Your task to perform on an android device: Open calendar and show me the fourth week of next month Image 0: 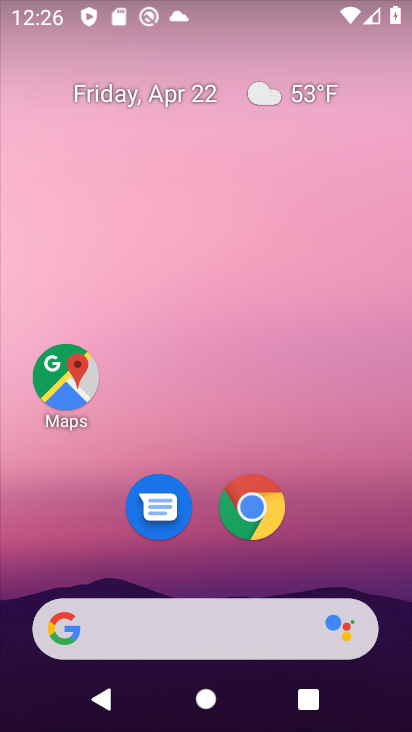
Step 0: drag from (332, 548) to (279, 105)
Your task to perform on an android device: Open calendar and show me the fourth week of next month Image 1: 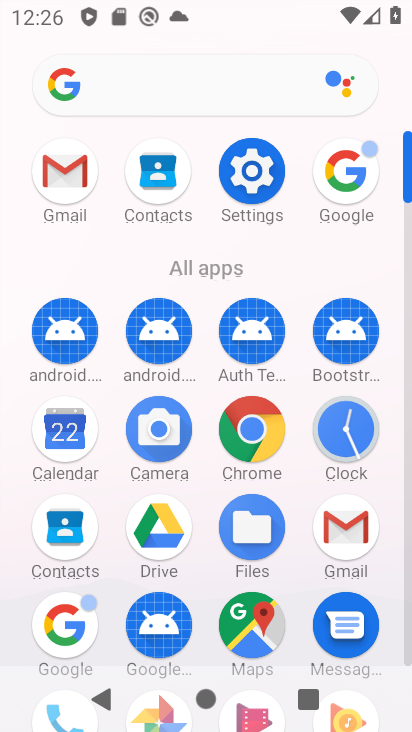
Step 1: click (55, 457)
Your task to perform on an android device: Open calendar and show me the fourth week of next month Image 2: 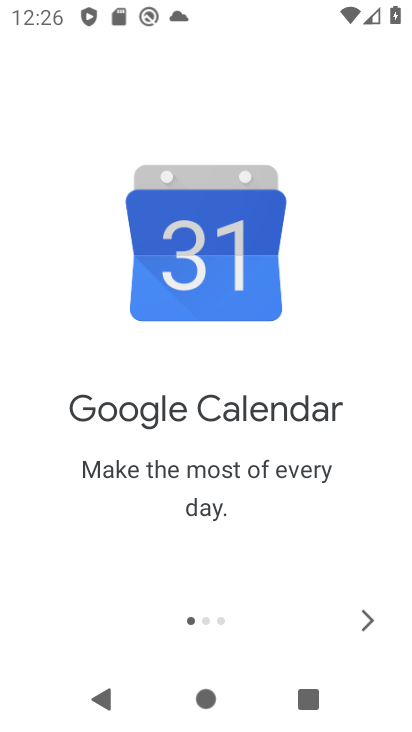
Step 2: click (363, 615)
Your task to perform on an android device: Open calendar and show me the fourth week of next month Image 3: 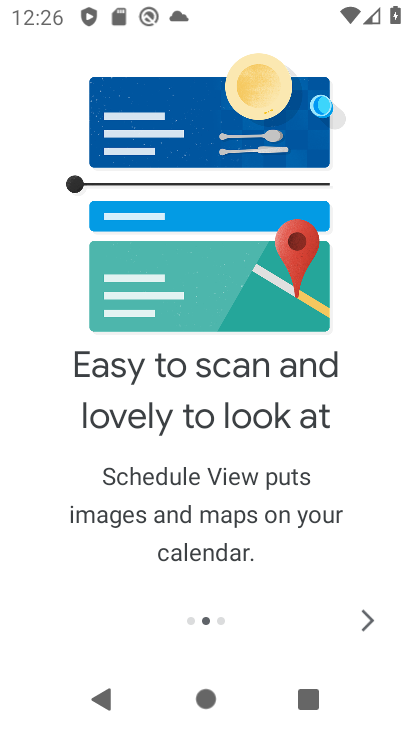
Step 3: click (363, 615)
Your task to perform on an android device: Open calendar and show me the fourth week of next month Image 4: 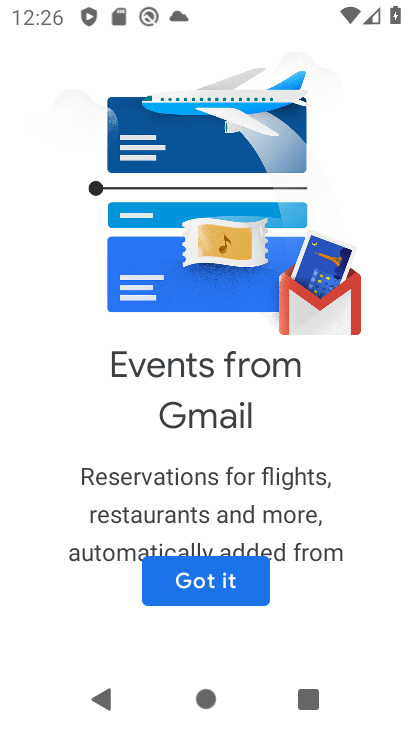
Step 4: click (204, 591)
Your task to perform on an android device: Open calendar and show me the fourth week of next month Image 5: 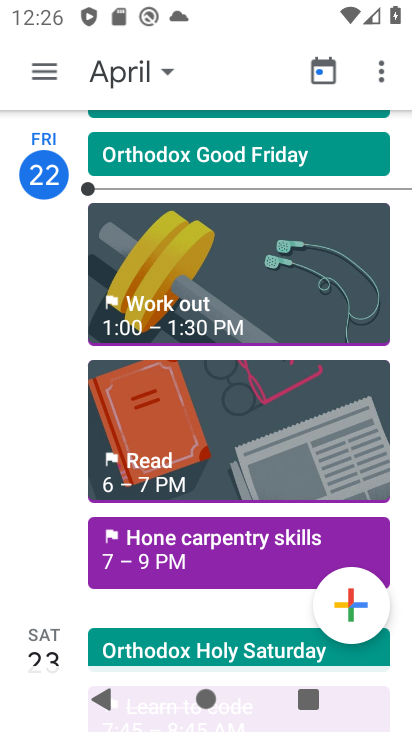
Step 5: click (161, 70)
Your task to perform on an android device: Open calendar and show me the fourth week of next month Image 6: 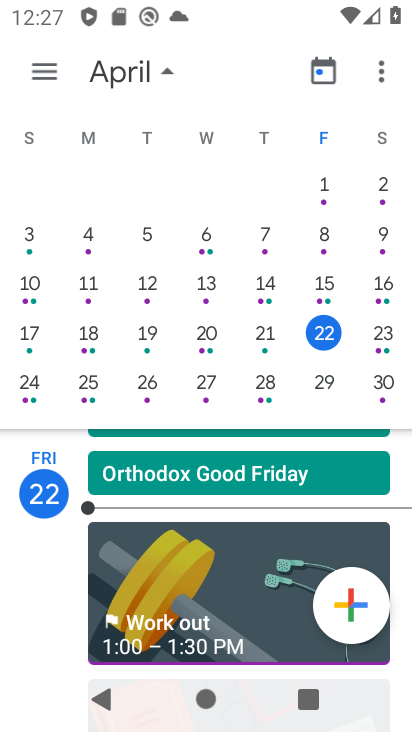
Step 6: drag from (172, 293) to (9, 289)
Your task to perform on an android device: Open calendar and show me the fourth week of next month Image 7: 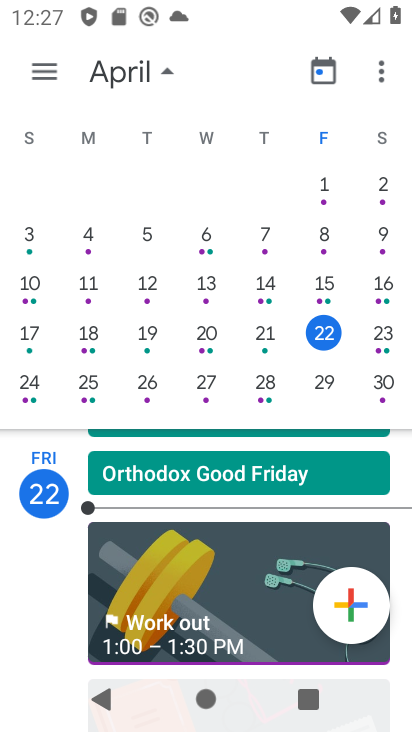
Step 7: drag from (268, 333) to (8, 329)
Your task to perform on an android device: Open calendar and show me the fourth week of next month Image 8: 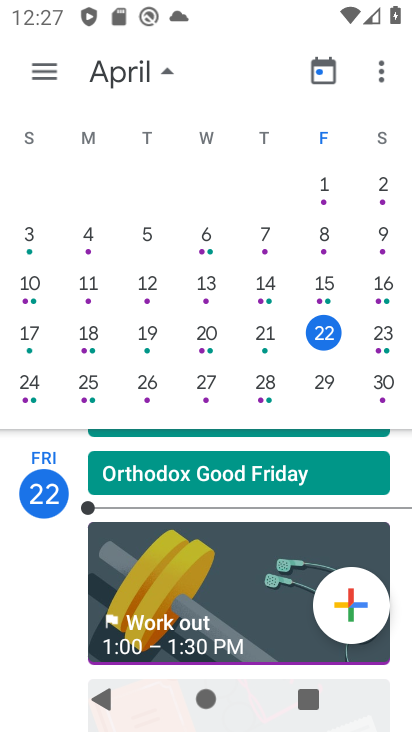
Step 8: drag from (384, 331) to (22, 352)
Your task to perform on an android device: Open calendar and show me the fourth week of next month Image 9: 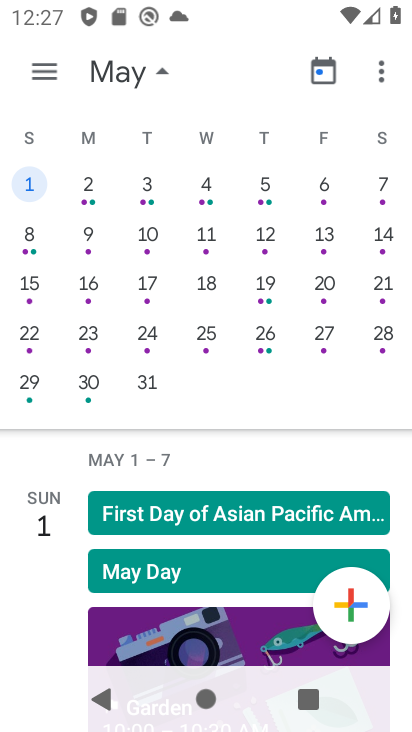
Step 9: click (25, 333)
Your task to perform on an android device: Open calendar and show me the fourth week of next month Image 10: 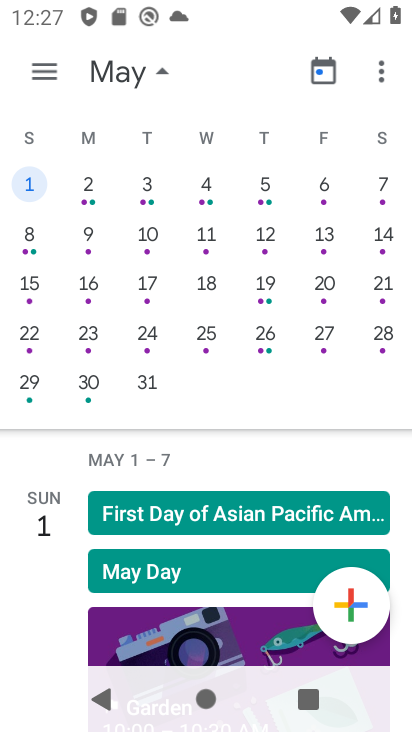
Step 10: click (33, 333)
Your task to perform on an android device: Open calendar and show me the fourth week of next month Image 11: 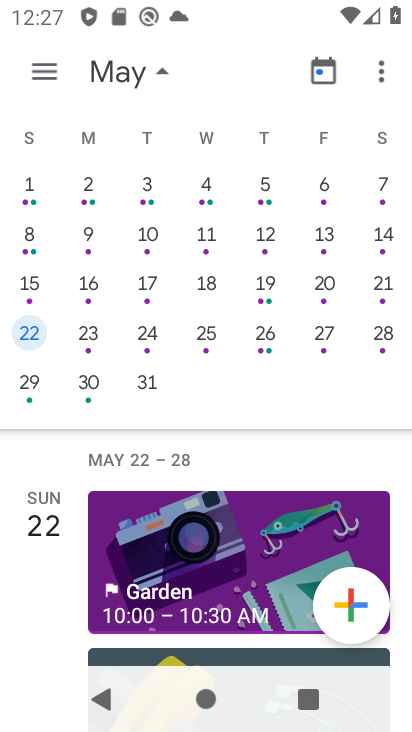
Step 11: click (42, 73)
Your task to perform on an android device: Open calendar and show me the fourth week of next month Image 12: 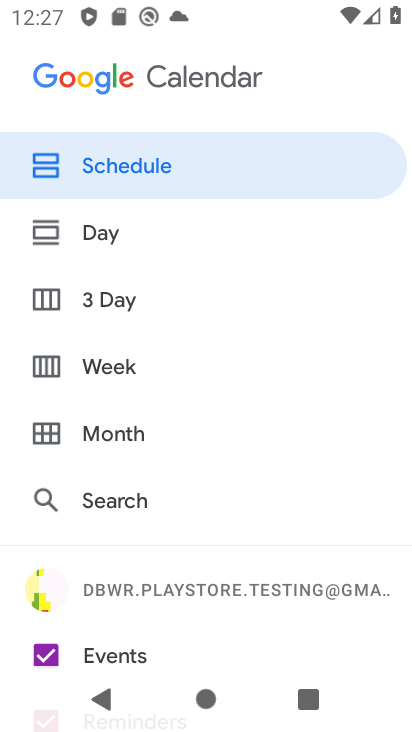
Step 12: click (96, 365)
Your task to perform on an android device: Open calendar and show me the fourth week of next month Image 13: 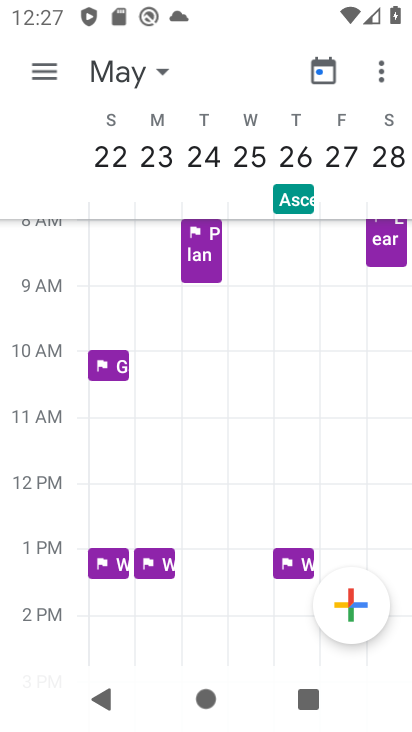
Step 13: task complete